Your task to perform on an android device: turn on wifi Image 0: 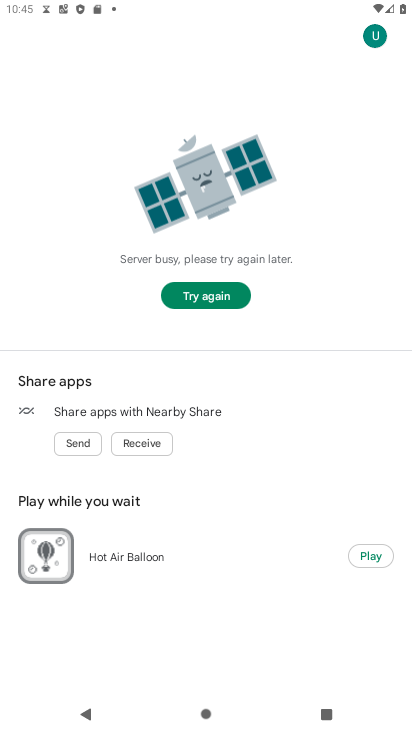
Step 0: press home button
Your task to perform on an android device: turn on wifi Image 1: 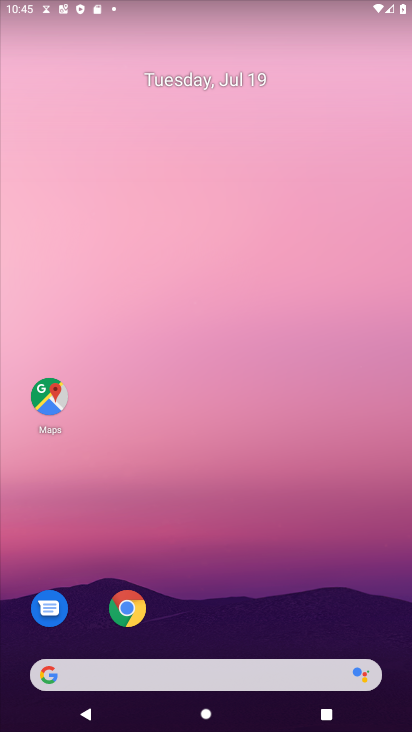
Step 1: drag from (306, 585) to (324, 6)
Your task to perform on an android device: turn on wifi Image 2: 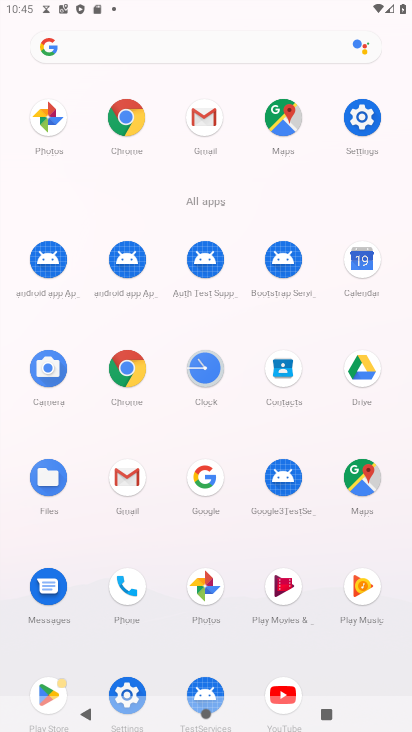
Step 2: click (359, 108)
Your task to perform on an android device: turn on wifi Image 3: 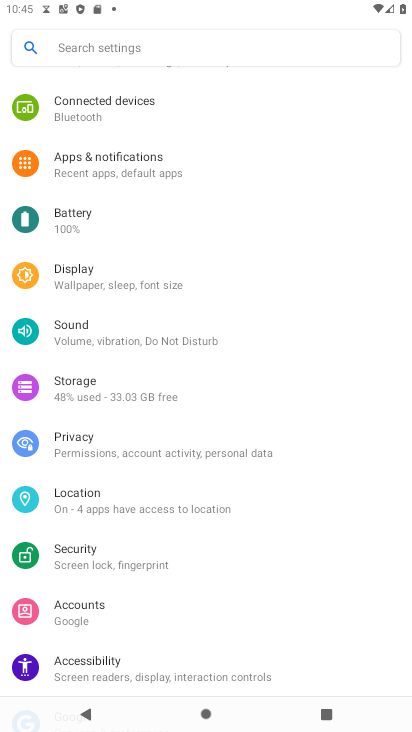
Step 3: drag from (226, 202) to (274, 370)
Your task to perform on an android device: turn on wifi Image 4: 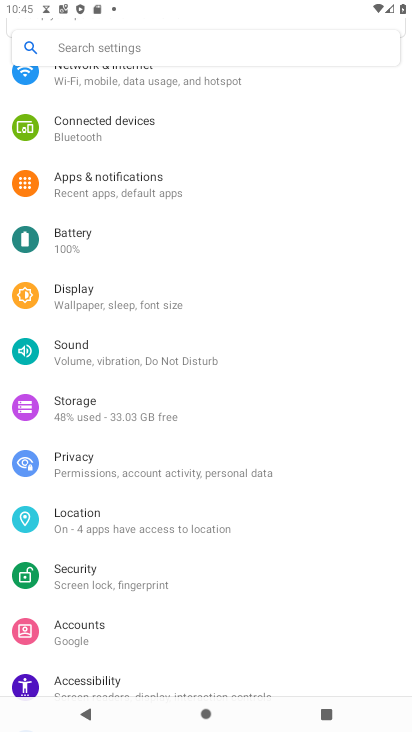
Step 4: click (233, 85)
Your task to perform on an android device: turn on wifi Image 5: 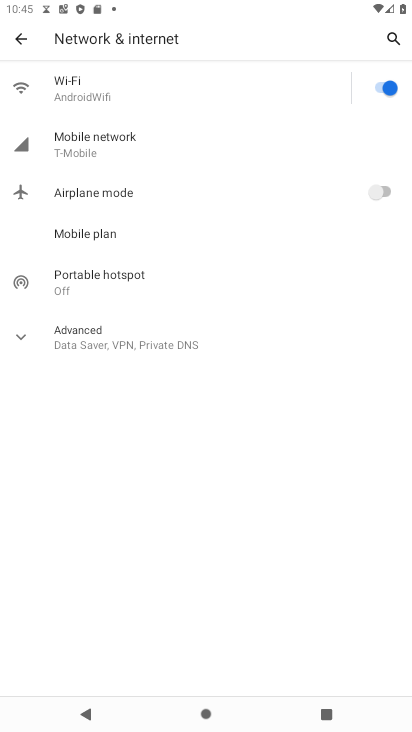
Step 5: task complete